Your task to perform on an android device: toggle location history Image 0: 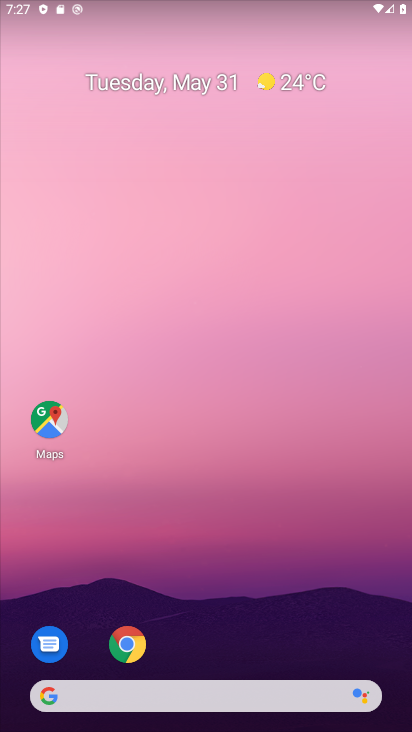
Step 0: drag from (360, 584) to (378, 136)
Your task to perform on an android device: toggle location history Image 1: 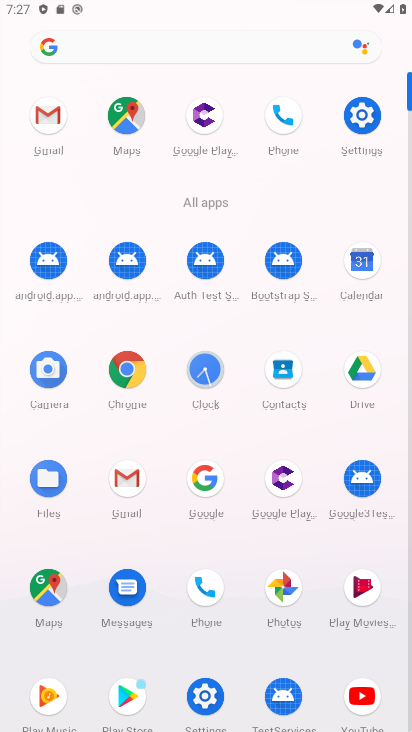
Step 1: click (211, 704)
Your task to perform on an android device: toggle location history Image 2: 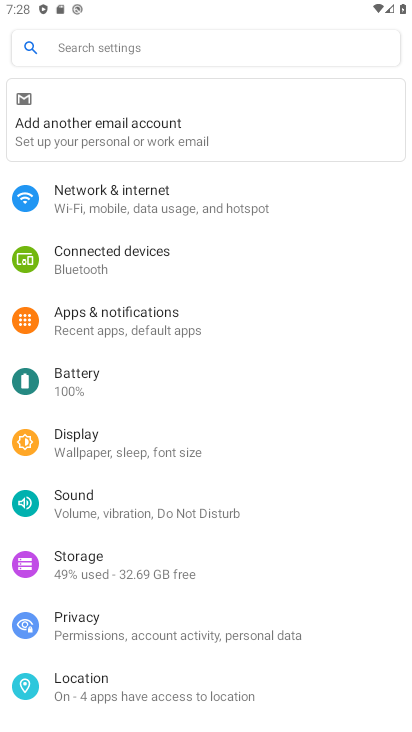
Step 2: click (152, 688)
Your task to perform on an android device: toggle location history Image 3: 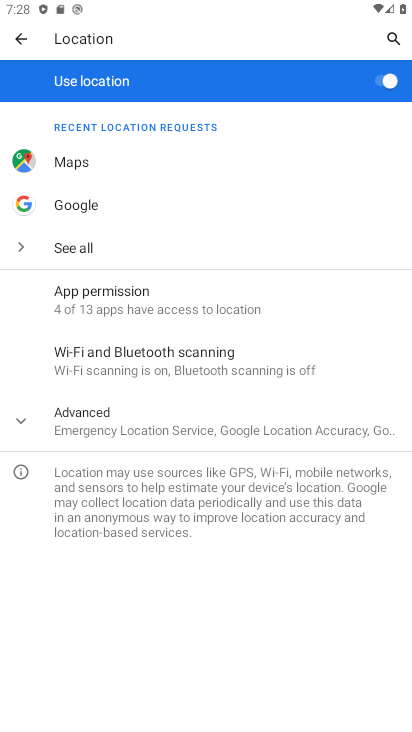
Step 3: click (253, 420)
Your task to perform on an android device: toggle location history Image 4: 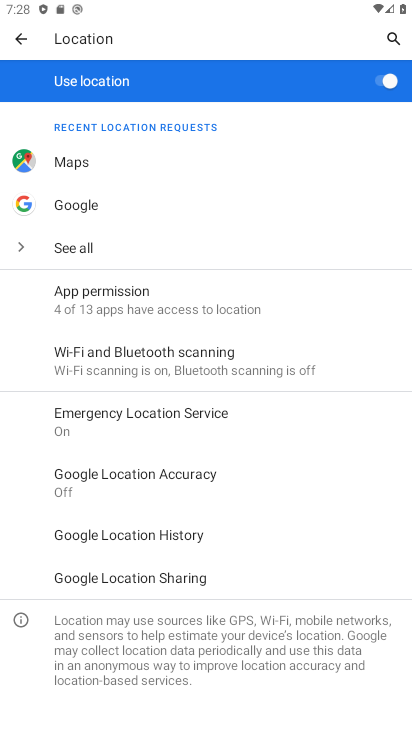
Step 4: click (169, 541)
Your task to perform on an android device: toggle location history Image 5: 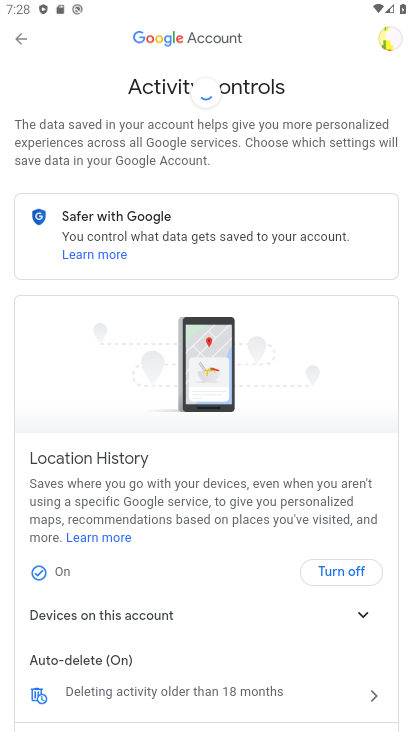
Step 5: click (345, 570)
Your task to perform on an android device: toggle location history Image 6: 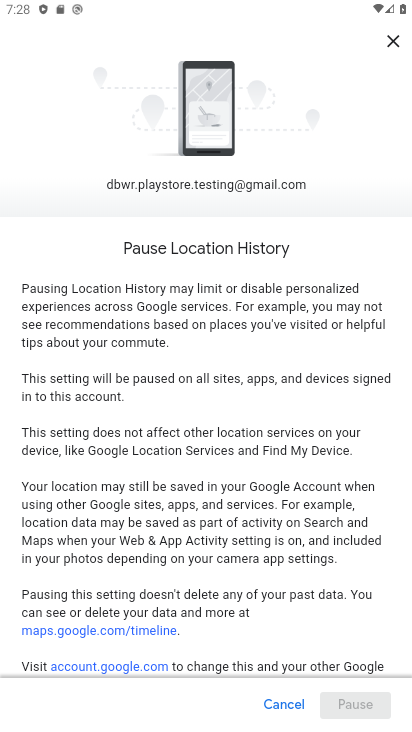
Step 6: drag from (313, 594) to (315, 305)
Your task to perform on an android device: toggle location history Image 7: 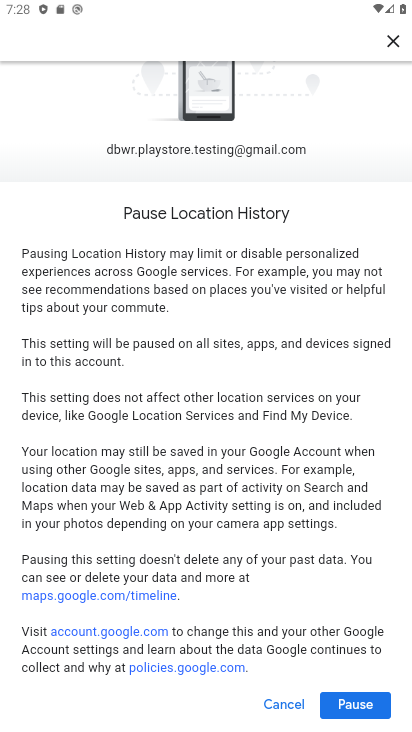
Step 7: click (359, 703)
Your task to perform on an android device: toggle location history Image 8: 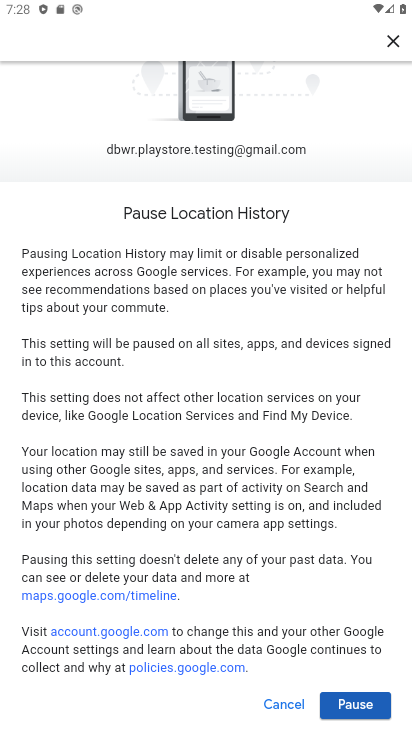
Step 8: click (351, 710)
Your task to perform on an android device: toggle location history Image 9: 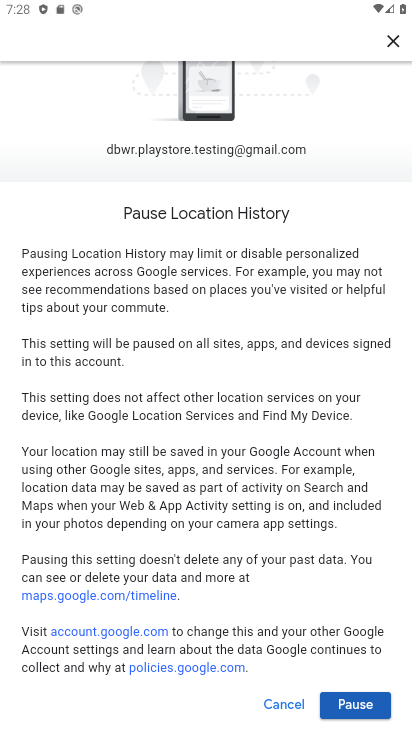
Step 9: click (351, 710)
Your task to perform on an android device: toggle location history Image 10: 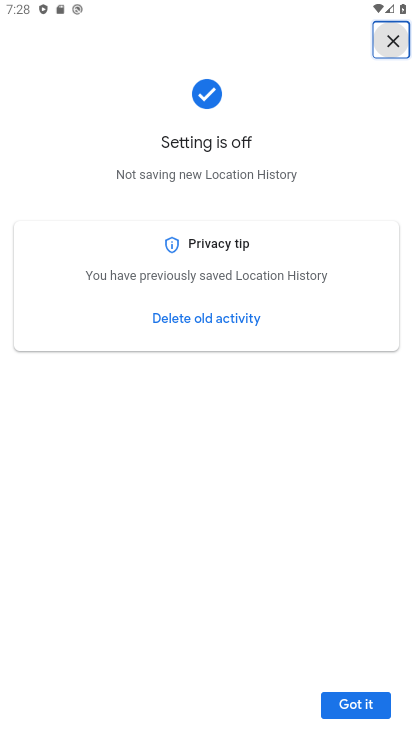
Step 10: task complete